Your task to perform on an android device: turn off location Image 0: 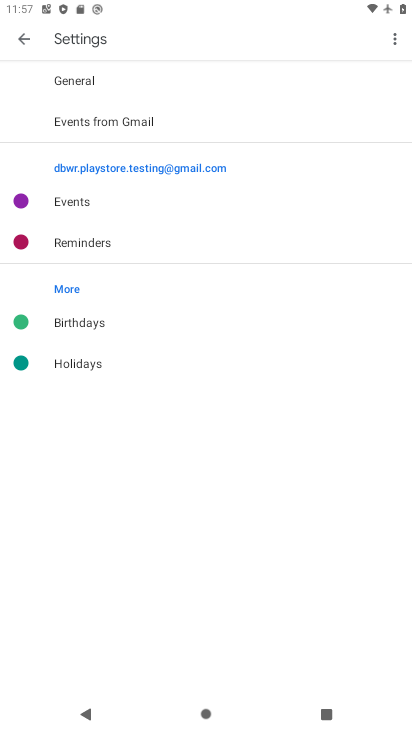
Step 0: press home button
Your task to perform on an android device: turn off location Image 1: 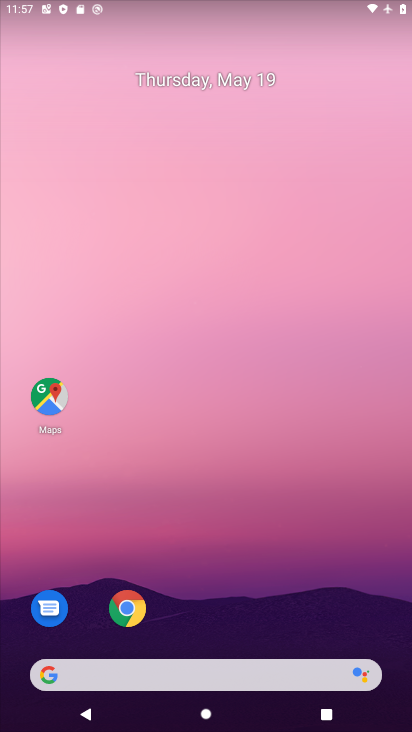
Step 1: drag from (338, 578) to (365, 165)
Your task to perform on an android device: turn off location Image 2: 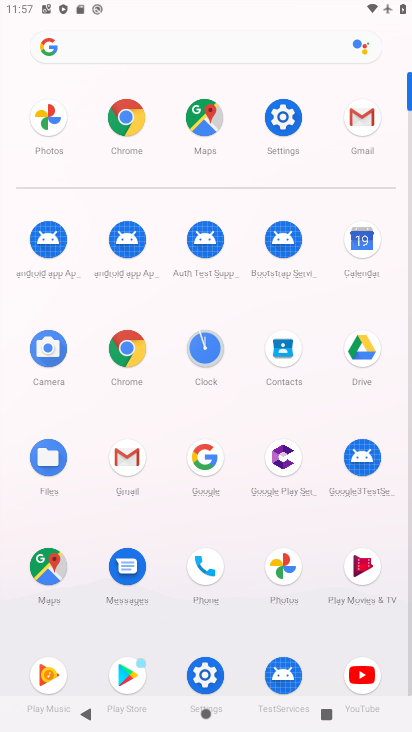
Step 2: click (283, 131)
Your task to perform on an android device: turn off location Image 3: 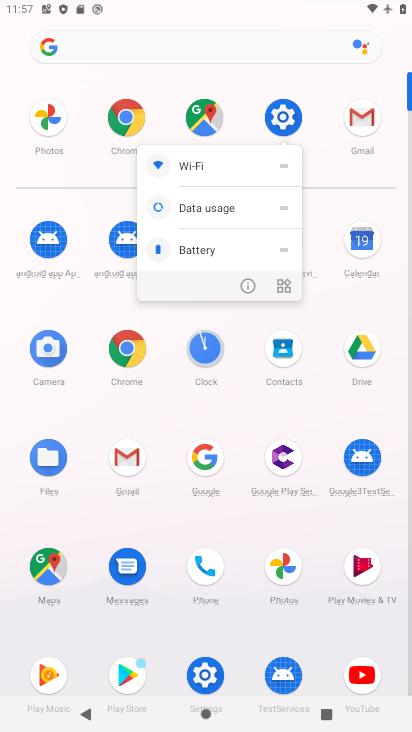
Step 3: click (283, 131)
Your task to perform on an android device: turn off location Image 4: 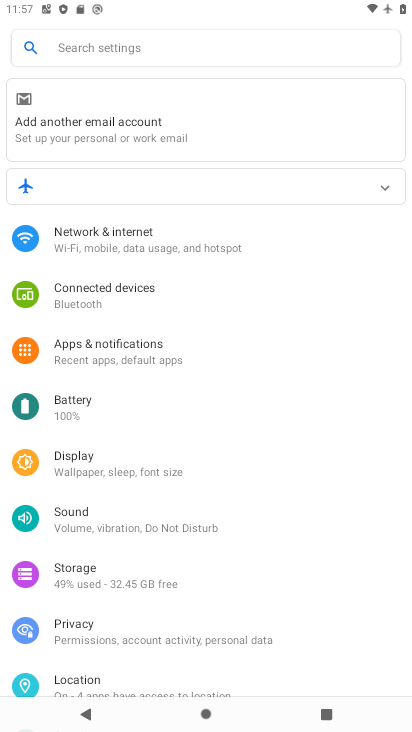
Step 4: drag from (329, 533) to (329, 451)
Your task to perform on an android device: turn off location Image 5: 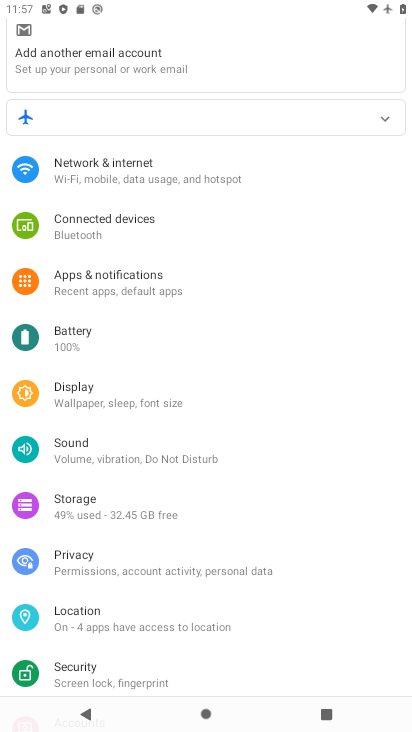
Step 5: drag from (343, 572) to (349, 502)
Your task to perform on an android device: turn off location Image 6: 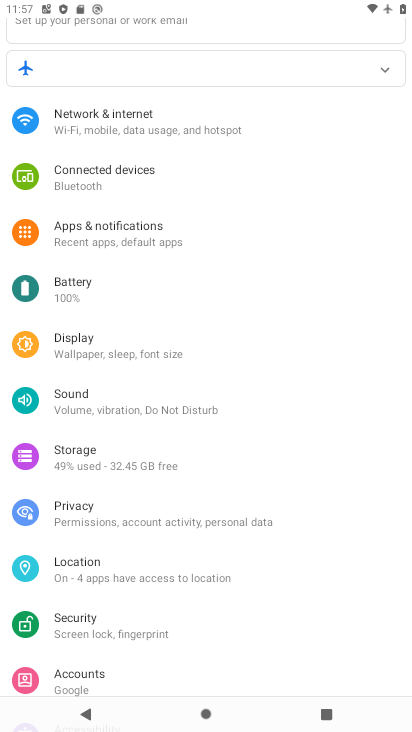
Step 6: drag from (352, 585) to (354, 497)
Your task to perform on an android device: turn off location Image 7: 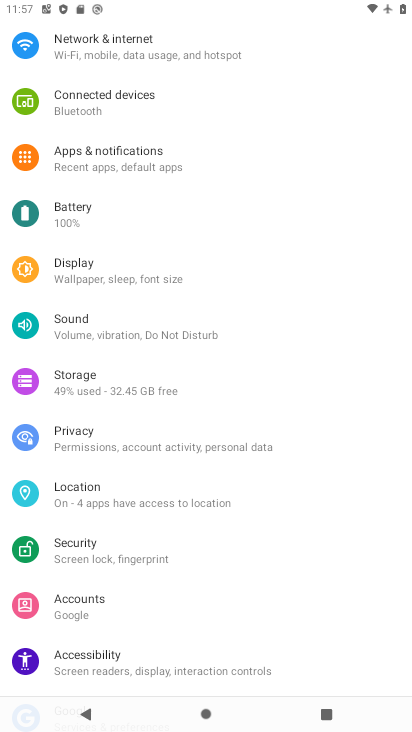
Step 7: drag from (355, 583) to (359, 527)
Your task to perform on an android device: turn off location Image 8: 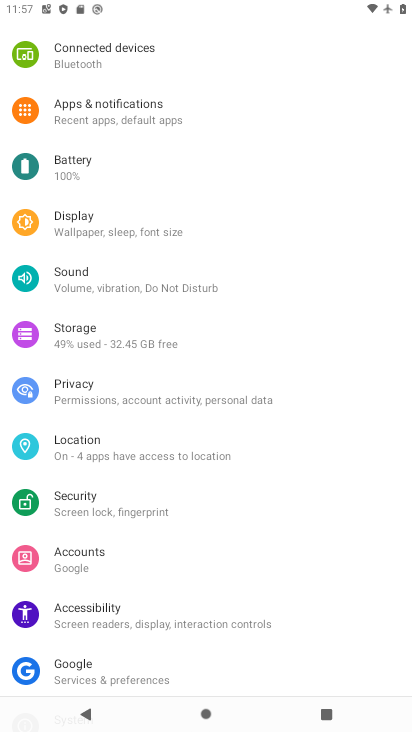
Step 8: drag from (353, 580) to (358, 514)
Your task to perform on an android device: turn off location Image 9: 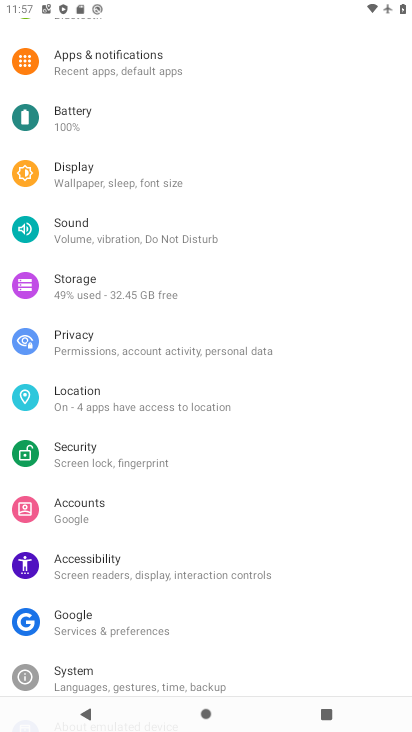
Step 9: drag from (364, 582) to (365, 534)
Your task to perform on an android device: turn off location Image 10: 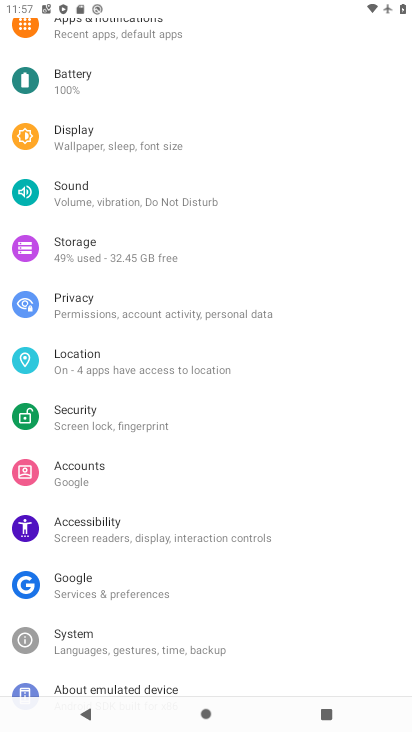
Step 10: drag from (351, 581) to (341, 520)
Your task to perform on an android device: turn off location Image 11: 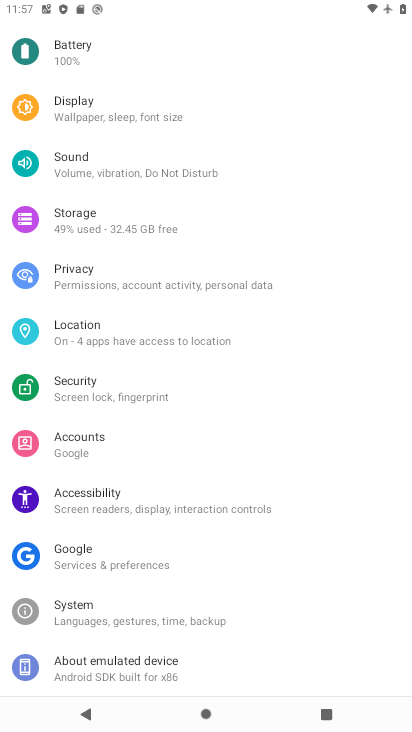
Step 11: click (344, 581)
Your task to perform on an android device: turn off location Image 12: 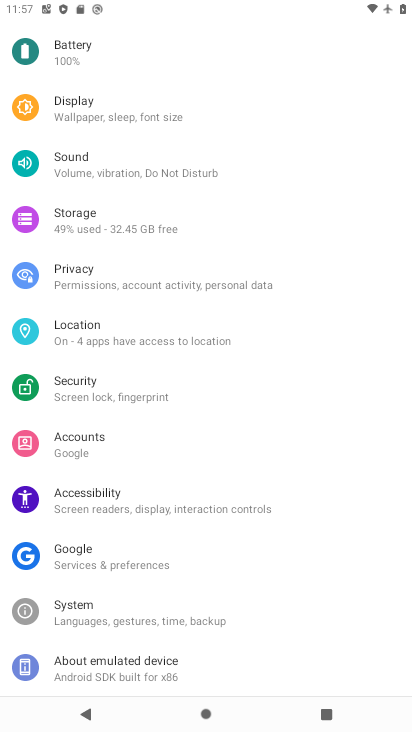
Step 12: click (337, 469)
Your task to perform on an android device: turn off location Image 13: 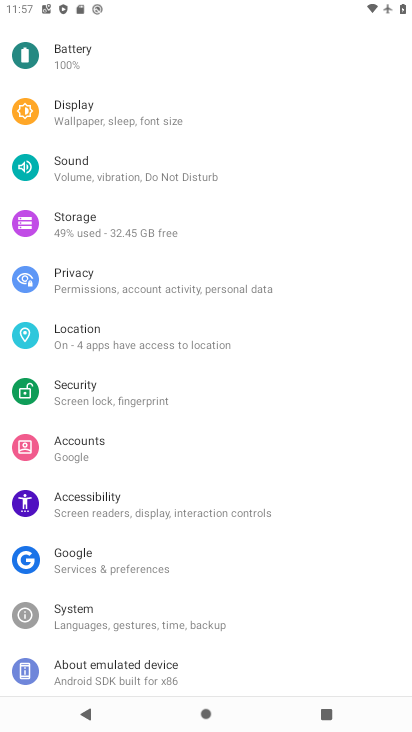
Step 13: drag from (344, 437) to (345, 475)
Your task to perform on an android device: turn off location Image 14: 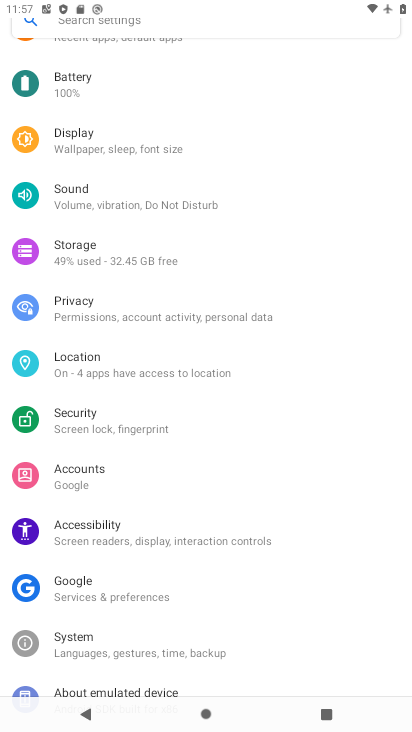
Step 14: click (346, 434)
Your task to perform on an android device: turn off location Image 15: 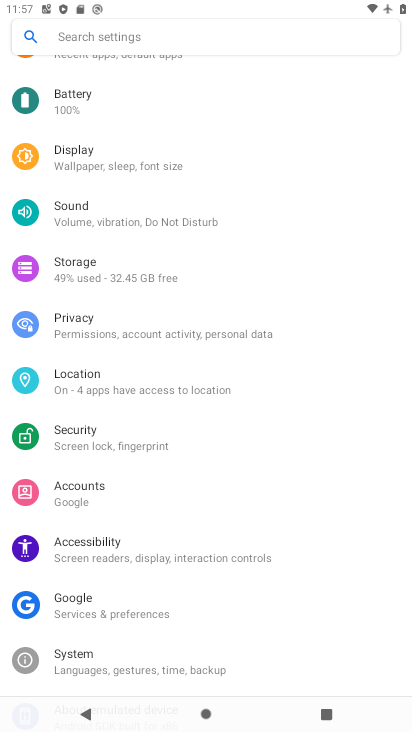
Step 15: click (354, 411)
Your task to perform on an android device: turn off location Image 16: 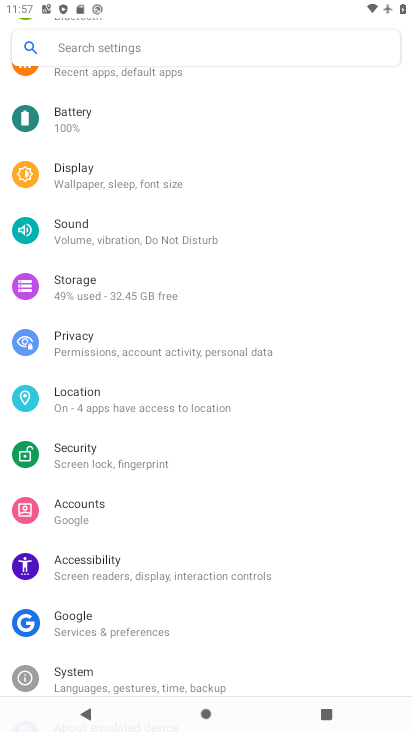
Step 16: drag from (346, 336) to (345, 412)
Your task to perform on an android device: turn off location Image 17: 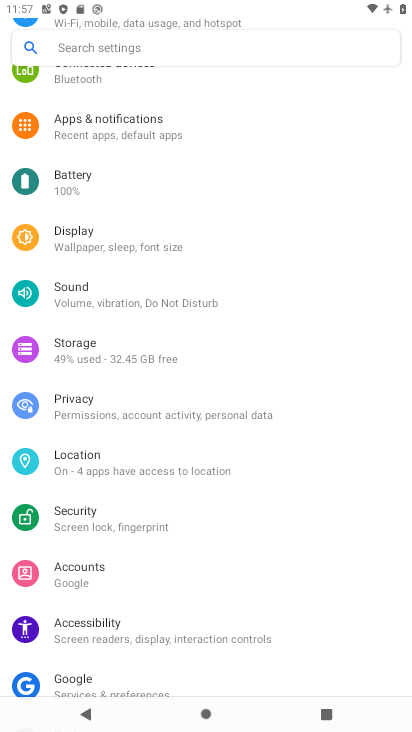
Step 17: click (256, 466)
Your task to perform on an android device: turn off location Image 18: 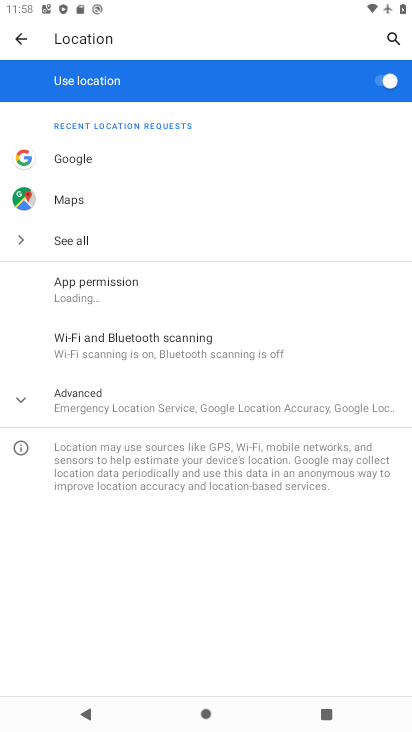
Step 18: click (380, 90)
Your task to perform on an android device: turn off location Image 19: 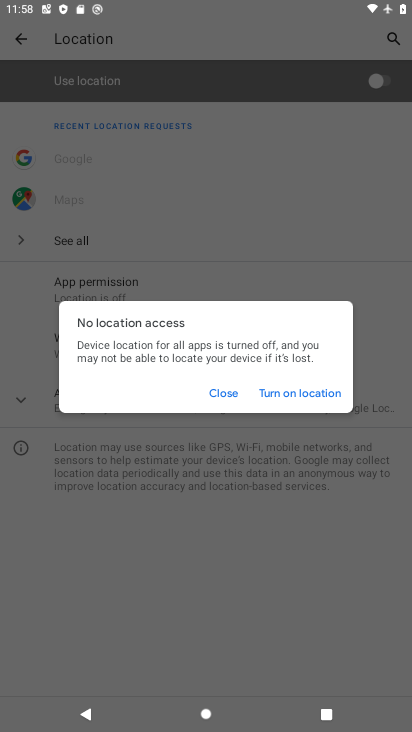
Step 19: press home button
Your task to perform on an android device: turn off location Image 20: 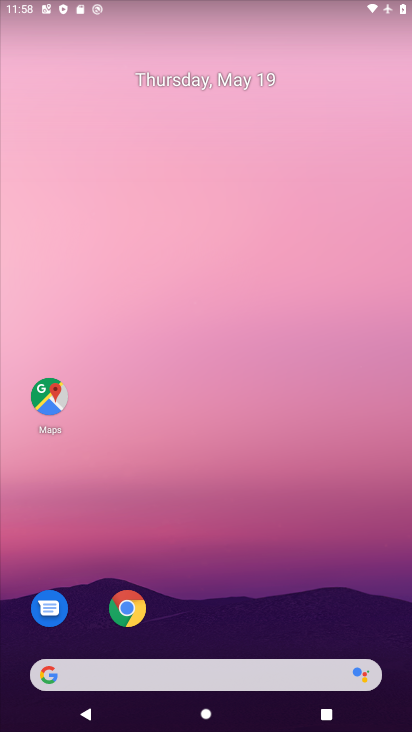
Step 20: drag from (319, 596) to (365, 115)
Your task to perform on an android device: turn off location Image 21: 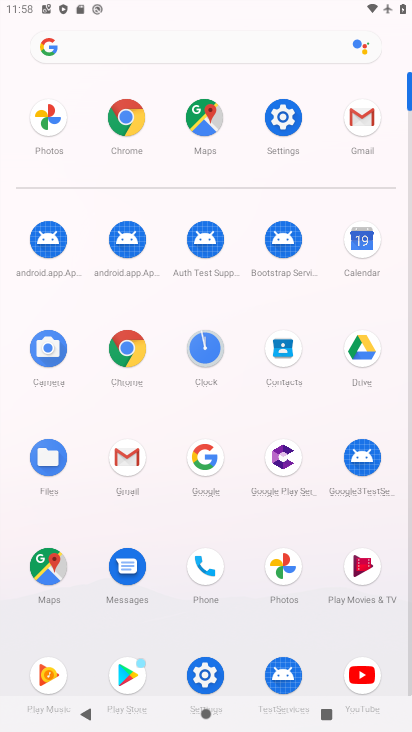
Step 21: click (293, 142)
Your task to perform on an android device: turn off location Image 22: 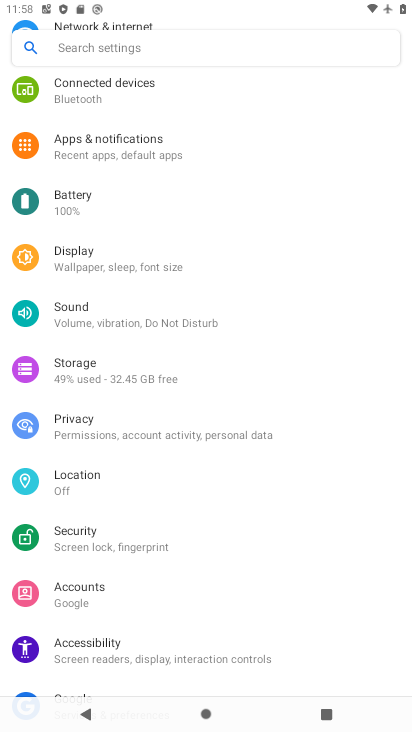
Step 22: drag from (310, 606) to (328, 477)
Your task to perform on an android device: turn off location Image 23: 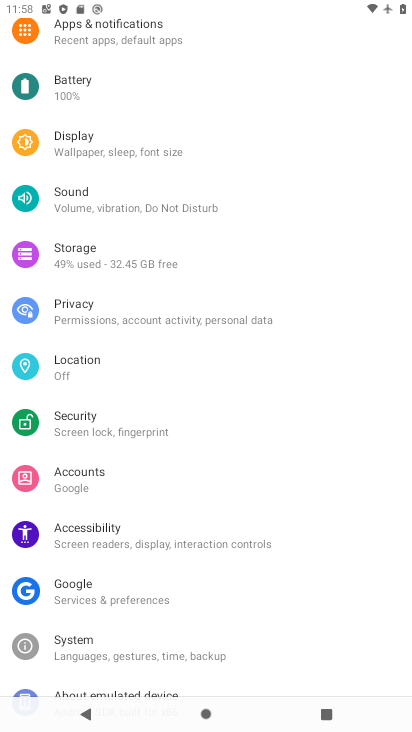
Step 23: drag from (323, 554) to (333, 454)
Your task to perform on an android device: turn off location Image 24: 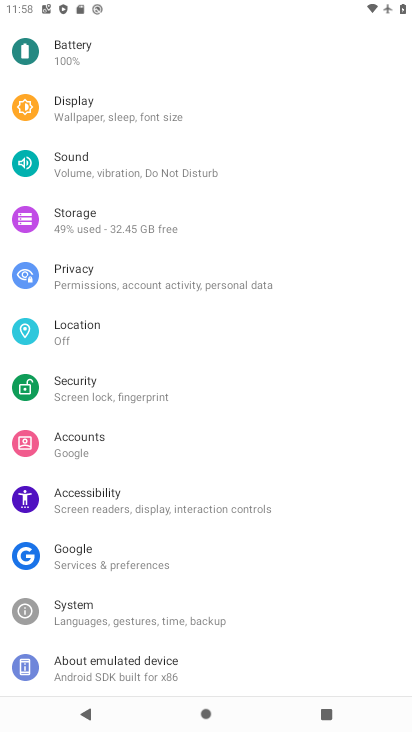
Step 24: drag from (316, 320) to (314, 399)
Your task to perform on an android device: turn off location Image 25: 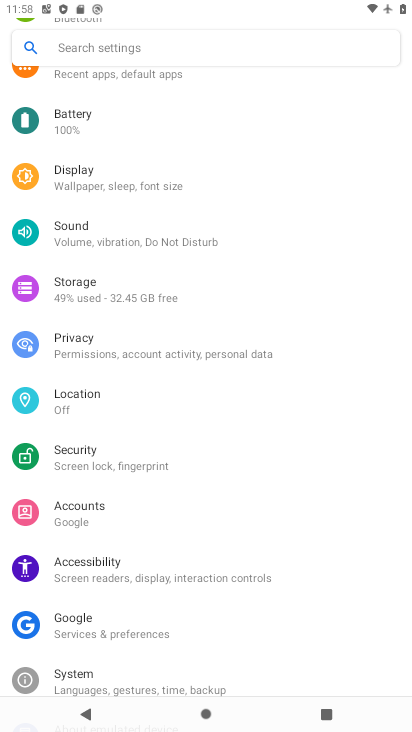
Step 25: click (214, 408)
Your task to perform on an android device: turn off location Image 26: 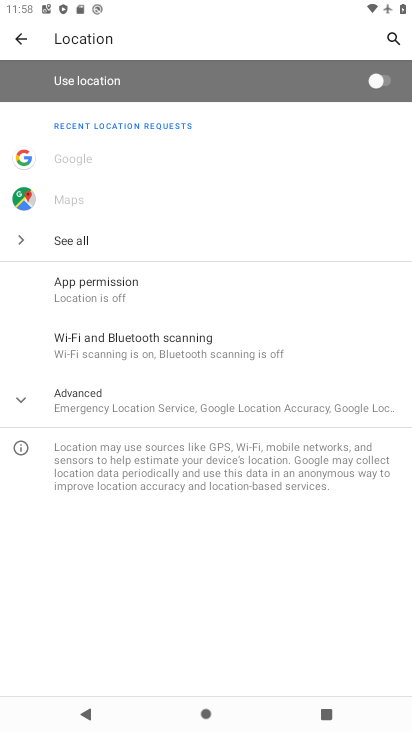
Step 26: task complete